Your task to perform on an android device: Clear the shopping cart on costco.com. Search for usb-c to usb-b on costco.com, select the first entry, and add it to the cart. Image 0: 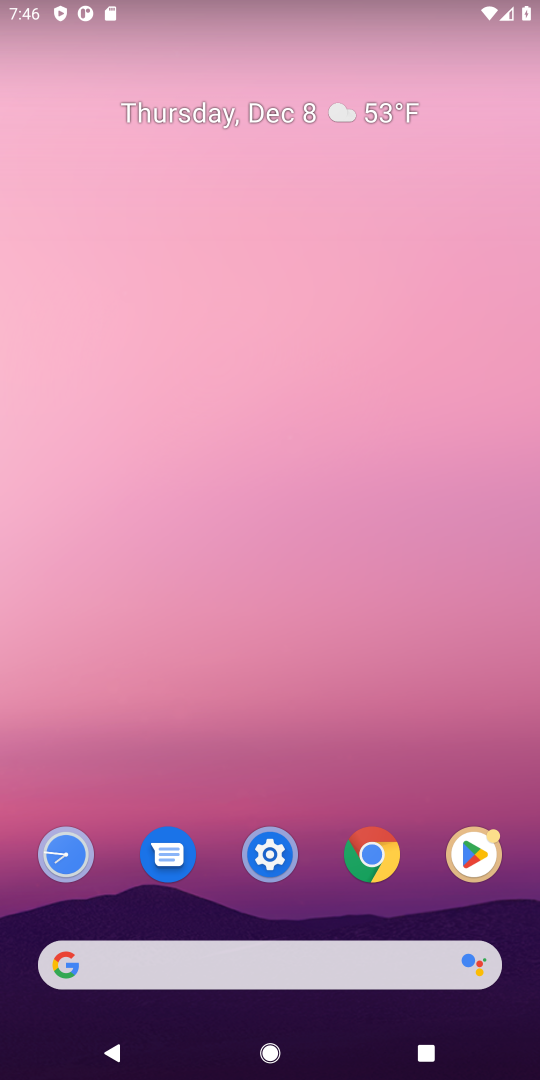
Step 0: press home button
Your task to perform on an android device: Clear the shopping cart on costco.com. Search for usb-c to usb-b on costco.com, select the first entry, and add it to the cart. Image 1: 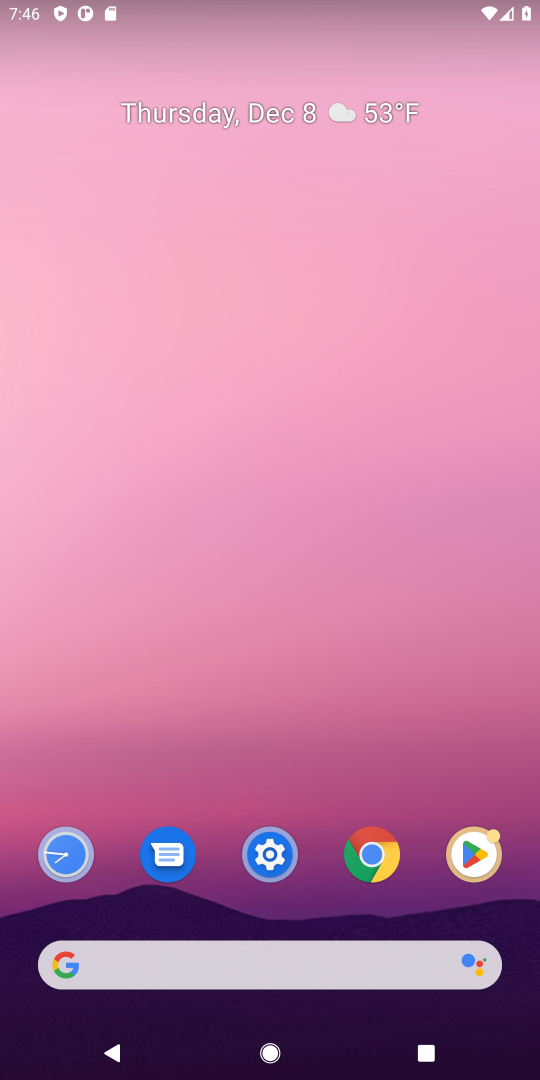
Step 1: click (95, 952)
Your task to perform on an android device: Clear the shopping cart on costco.com. Search for usb-c to usb-b on costco.com, select the first entry, and add it to the cart. Image 2: 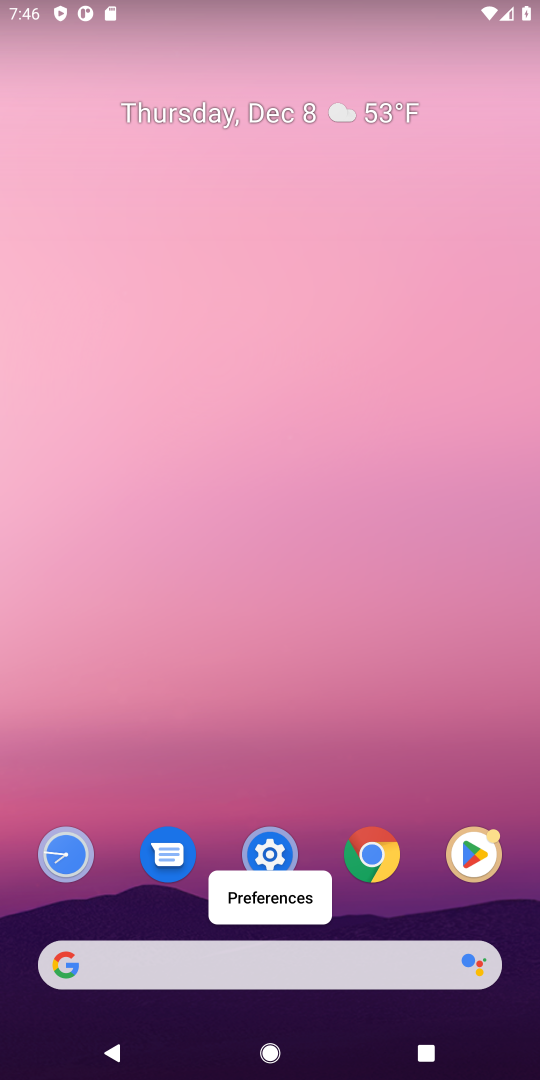
Step 2: click (102, 963)
Your task to perform on an android device: Clear the shopping cart on costco.com. Search for usb-c to usb-b on costco.com, select the first entry, and add it to the cart. Image 3: 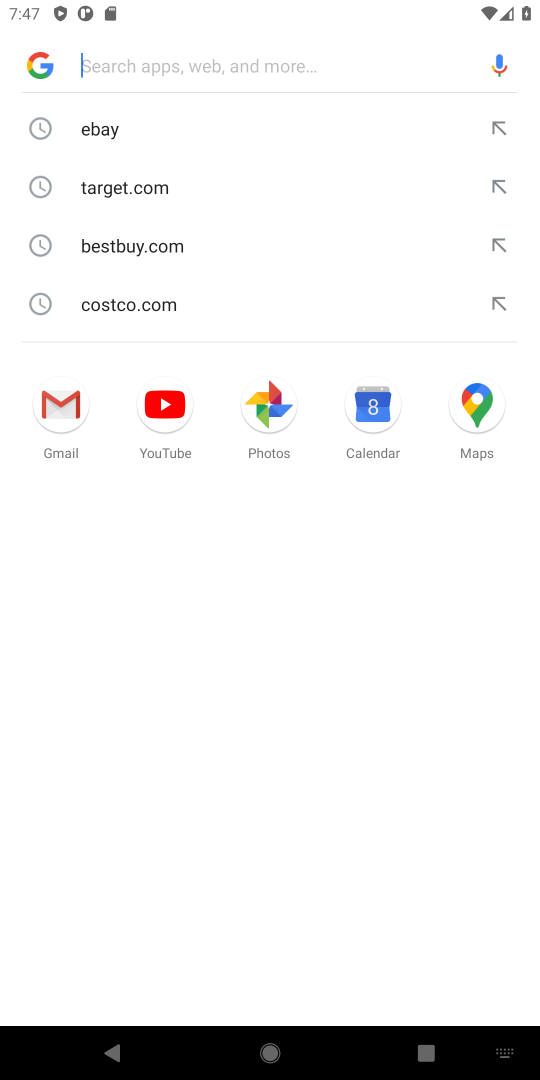
Step 3: type "costco.com"
Your task to perform on an android device: Clear the shopping cart on costco.com. Search for usb-c to usb-b on costco.com, select the first entry, and add it to the cart. Image 4: 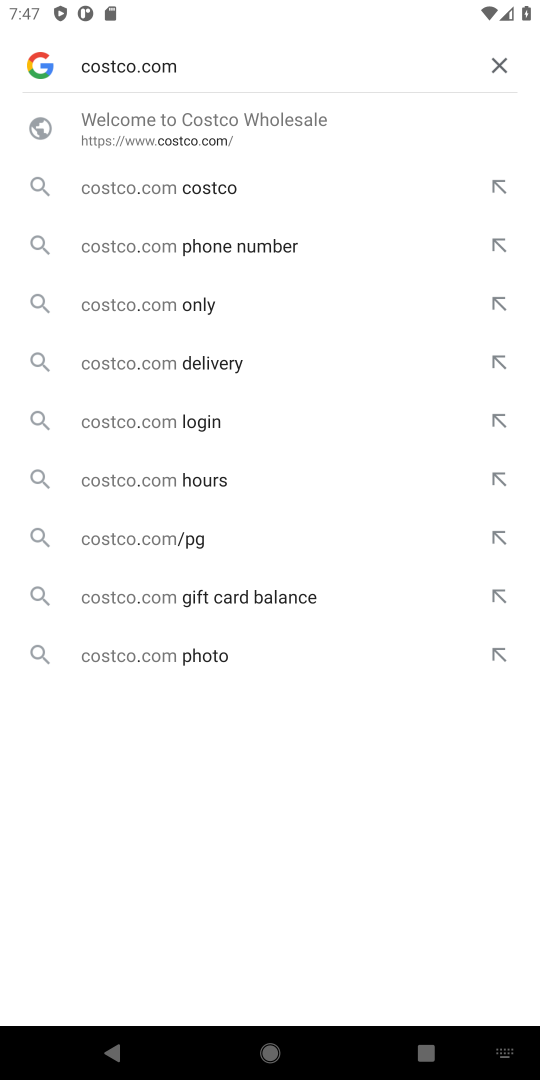
Step 4: press enter
Your task to perform on an android device: Clear the shopping cart on costco.com. Search for usb-c to usb-b on costco.com, select the first entry, and add it to the cart. Image 5: 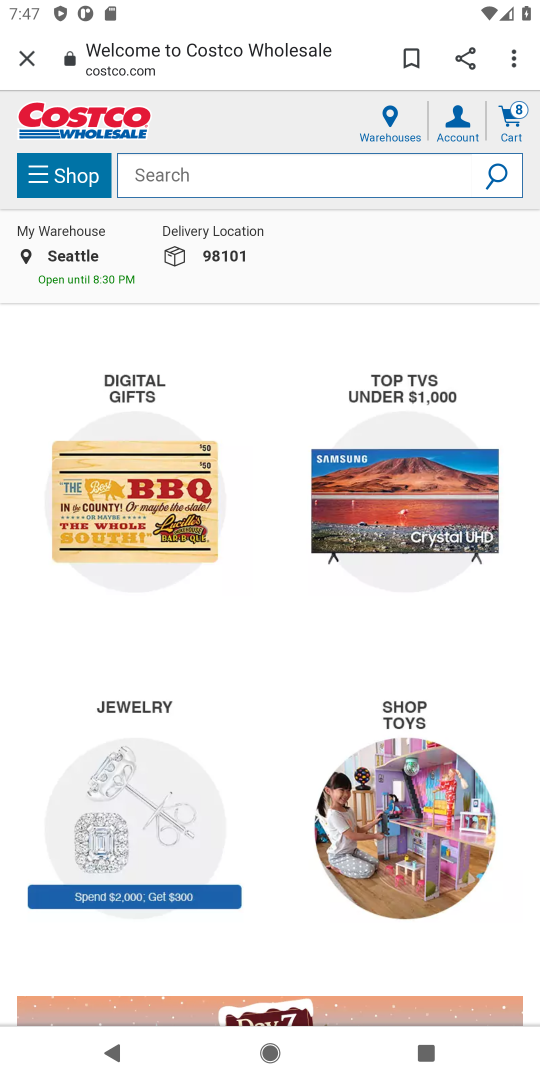
Step 5: click (512, 116)
Your task to perform on an android device: Clear the shopping cart on costco.com. Search for usb-c to usb-b on costco.com, select the first entry, and add it to the cart. Image 6: 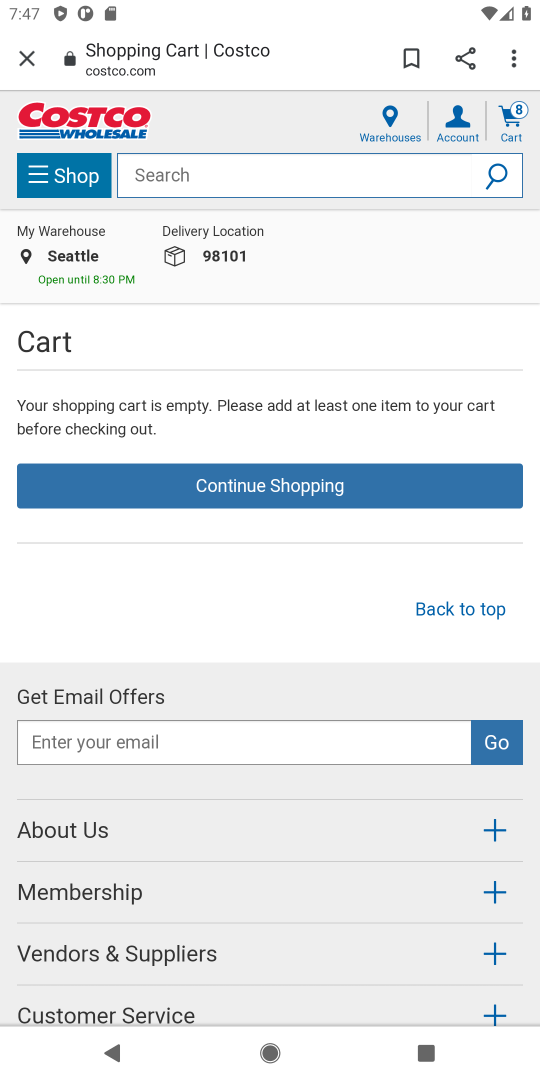
Step 6: click (180, 171)
Your task to perform on an android device: Clear the shopping cart on costco.com. Search for usb-c to usb-b on costco.com, select the first entry, and add it to the cart. Image 7: 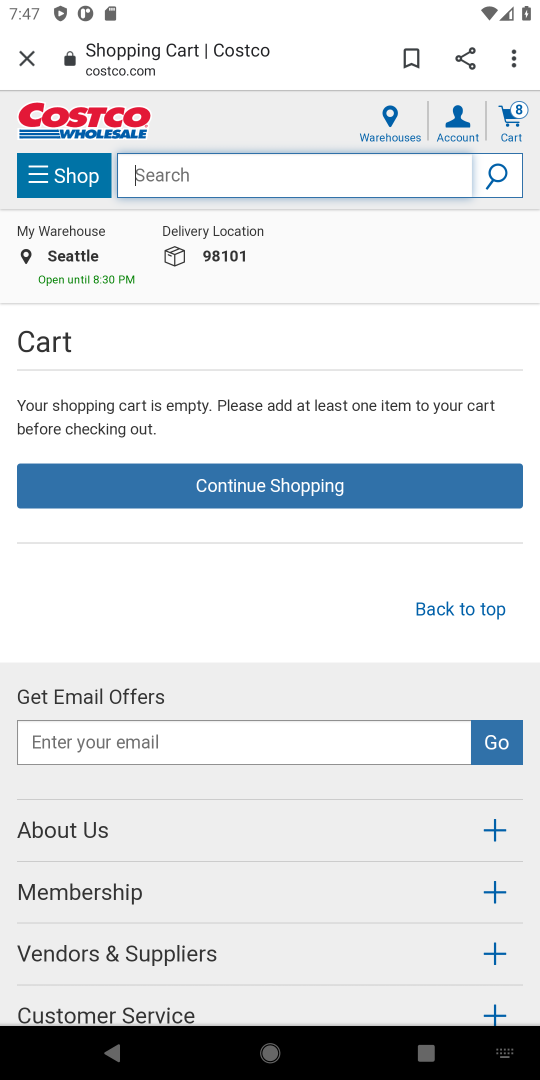
Step 7: type "usb-c to usb-b"
Your task to perform on an android device: Clear the shopping cart on costco.com. Search for usb-c to usb-b on costco.com, select the first entry, and add it to the cart. Image 8: 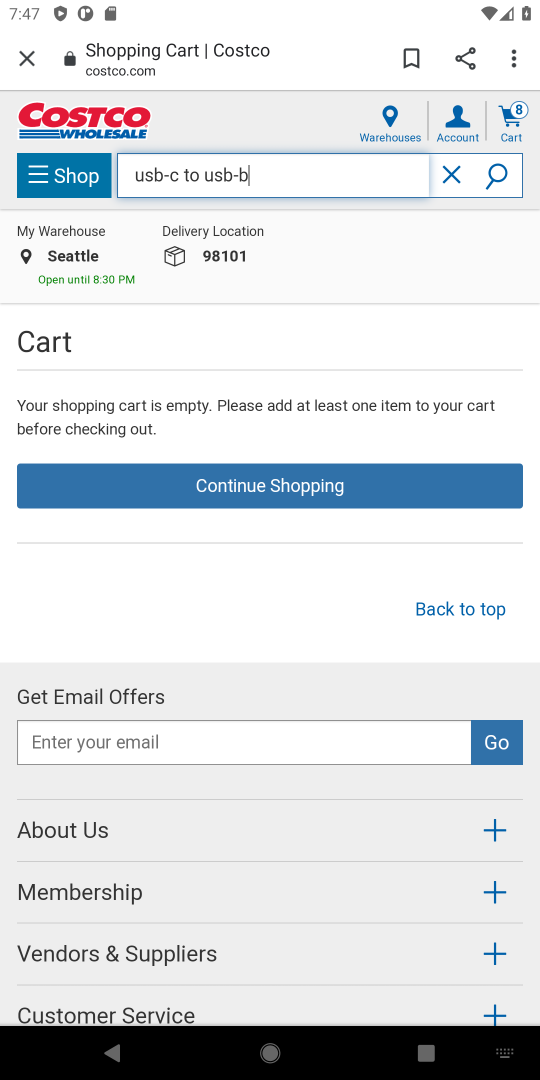
Step 8: press enter
Your task to perform on an android device: Clear the shopping cart on costco.com. Search for usb-c to usb-b on costco.com, select the first entry, and add it to the cart. Image 9: 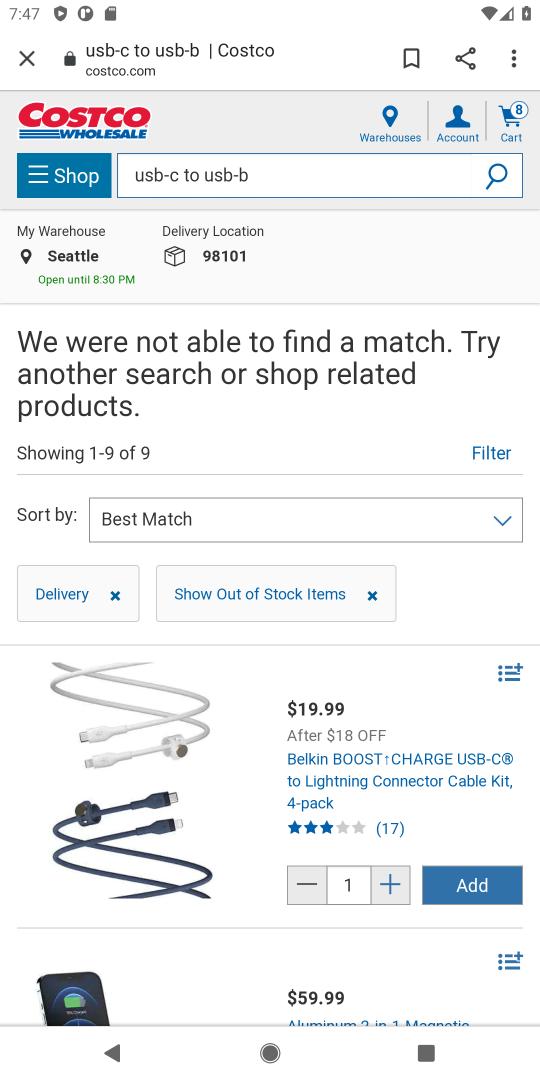
Step 9: task complete